Your task to perform on an android device: Open the calendar app, open the side menu, and click the "Day" option Image 0: 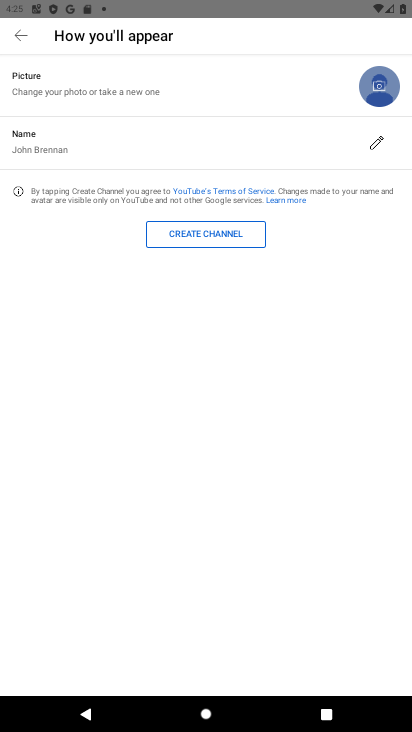
Step 0: press home button
Your task to perform on an android device: Open the calendar app, open the side menu, and click the "Day" option Image 1: 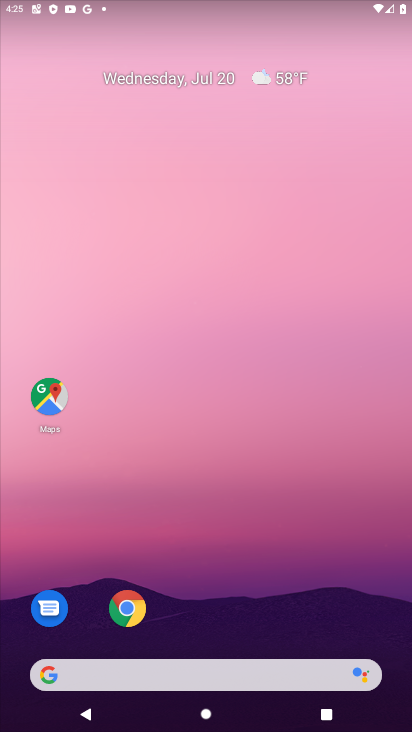
Step 1: drag from (223, 630) to (239, 219)
Your task to perform on an android device: Open the calendar app, open the side menu, and click the "Day" option Image 2: 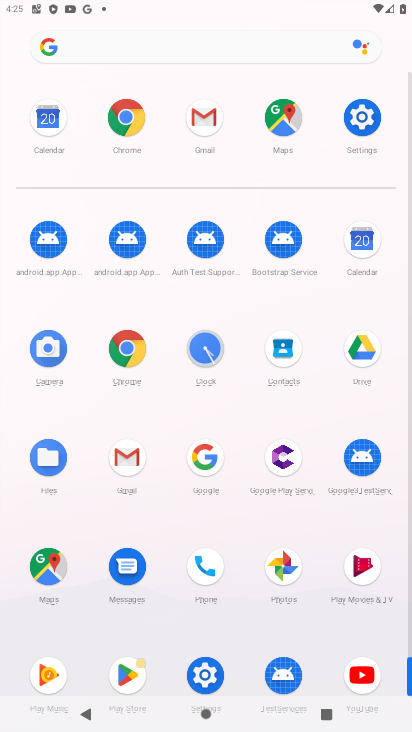
Step 2: click (365, 245)
Your task to perform on an android device: Open the calendar app, open the side menu, and click the "Day" option Image 3: 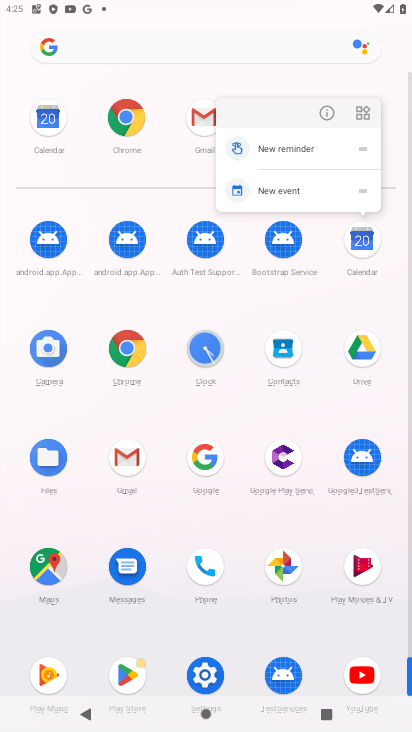
Step 3: click (360, 254)
Your task to perform on an android device: Open the calendar app, open the side menu, and click the "Day" option Image 4: 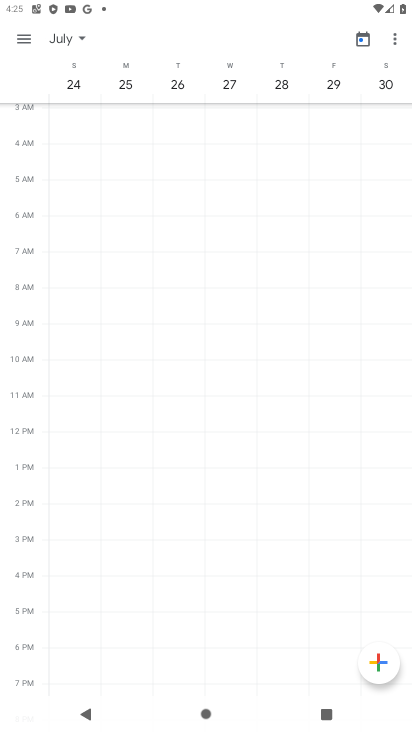
Step 4: click (24, 43)
Your task to perform on an android device: Open the calendar app, open the side menu, and click the "Day" option Image 5: 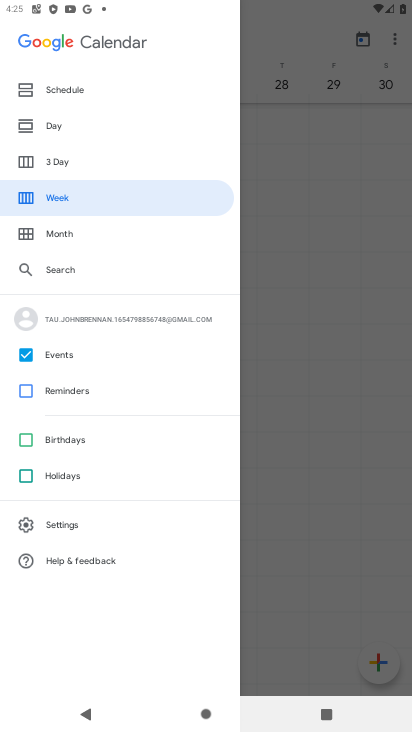
Step 5: click (59, 122)
Your task to perform on an android device: Open the calendar app, open the side menu, and click the "Day" option Image 6: 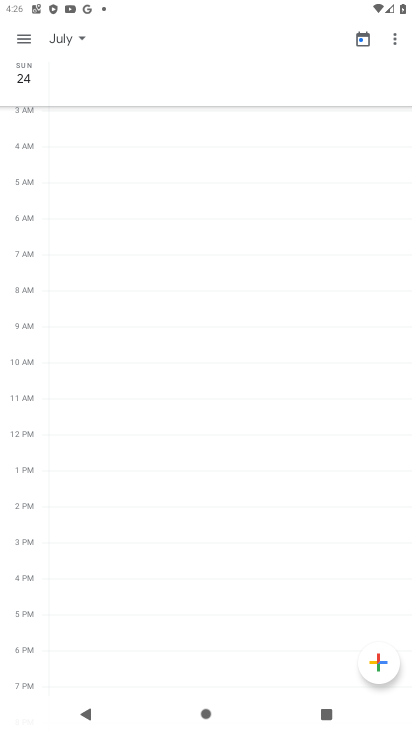
Step 6: task complete